Your task to perform on an android device: check out phone information Image 0: 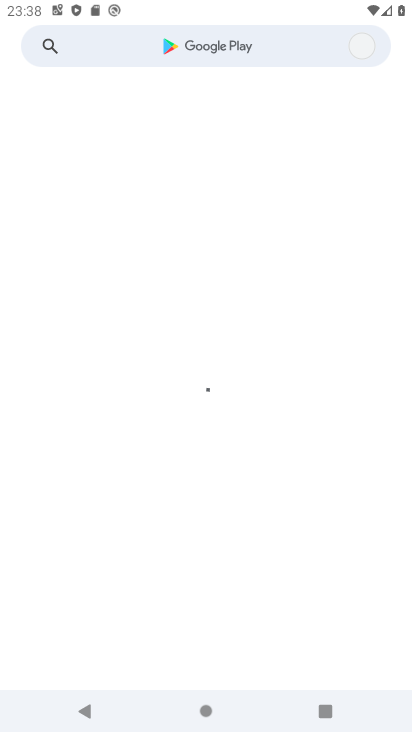
Step 0: press home button
Your task to perform on an android device: check out phone information Image 1: 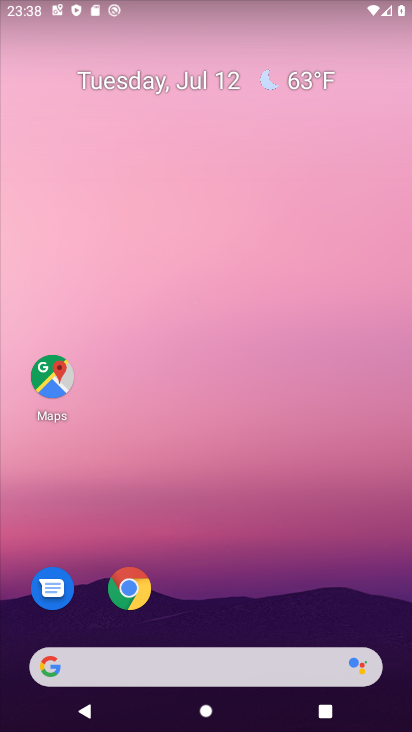
Step 1: drag from (10, 701) to (402, 139)
Your task to perform on an android device: check out phone information Image 2: 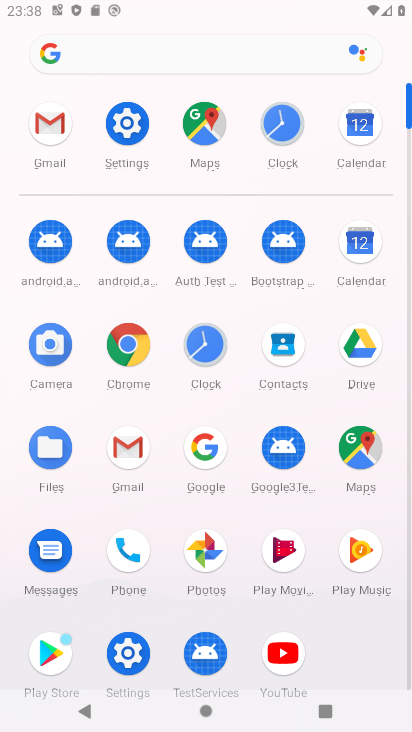
Step 2: click (196, 504)
Your task to perform on an android device: check out phone information Image 3: 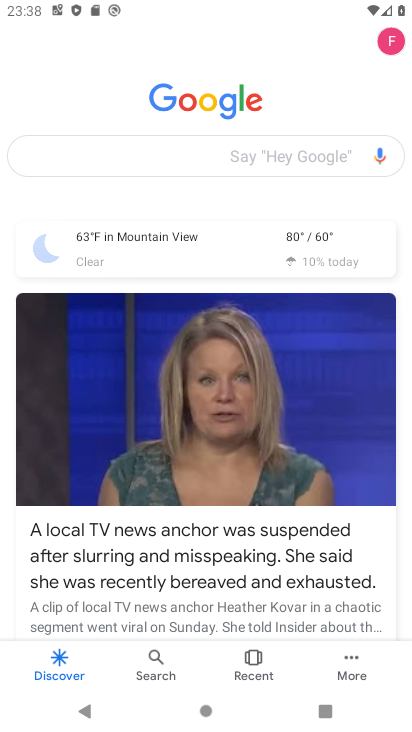
Step 3: press home button
Your task to perform on an android device: check out phone information Image 4: 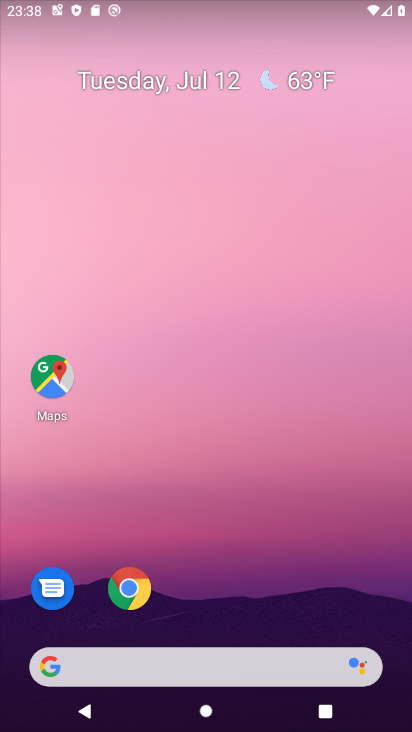
Step 4: drag from (136, 431) to (295, 51)
Your task to perform on an android device: check out phone information Image 5: 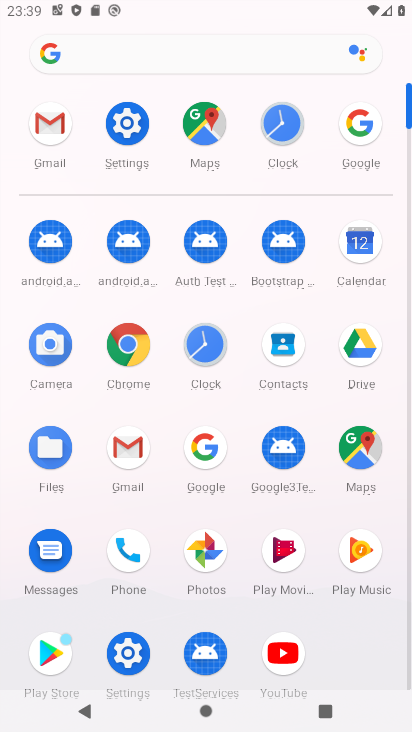
Step 5: click (124, 569)
Your task to perform on an android device: check out phone information Image 6: 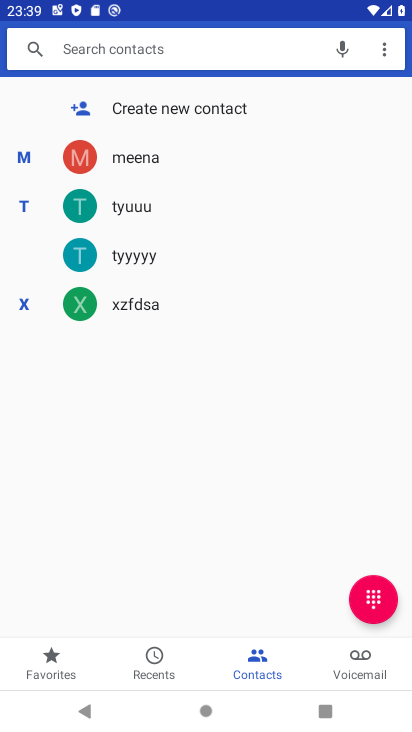
Step 6: task complete